Your task to perform on an android device: turn pop-ups off in chrome Image 0: 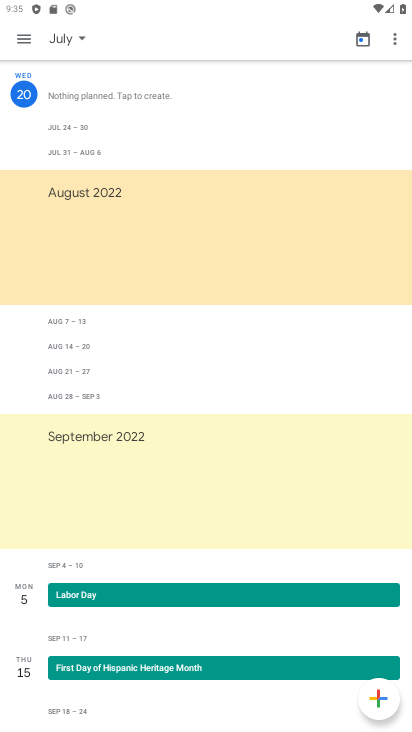
Step 0: press home button
Your task to perform on an android device: turn pop-ups off in chrome Image 1: 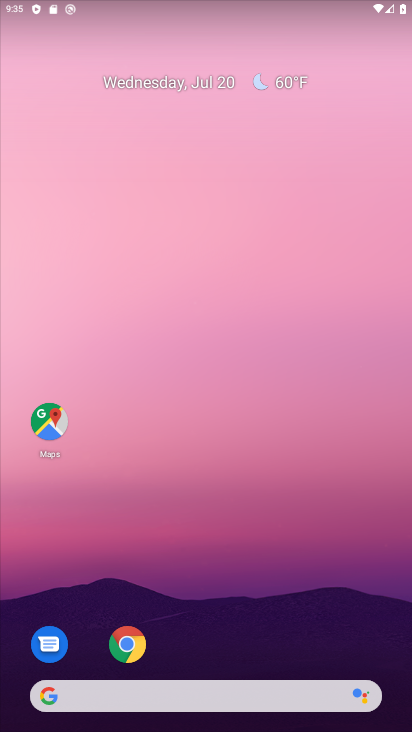
Step 1: click (135, 650)
Your task to perform on an android device: turn pop-ups off in chrome Image 2: 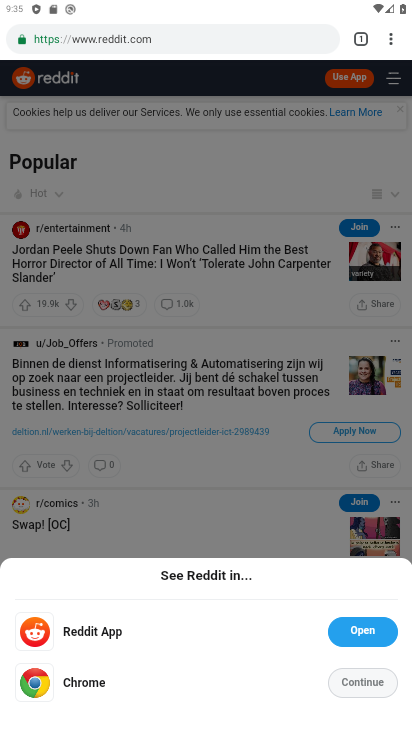
Step 2: click (390, 42)
Your task to perform on an android device: turn pop-ups off in chrome Image 3: 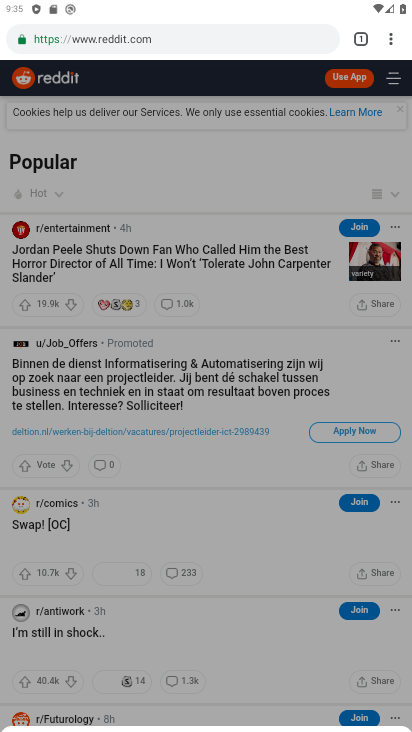
Step 3: click (390, 42)
Your task to perform on an android device: turn pop-ups off in chrome Image 4: 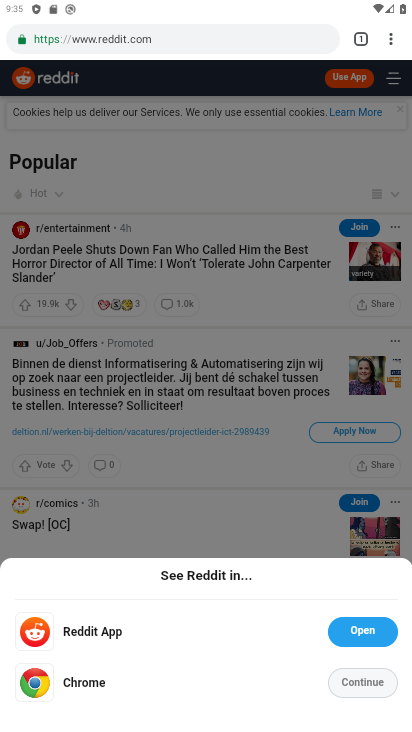
Step 4: click (387, 40)
Your task to perform on an android device: turn pop-ups off in chrome Image 5: 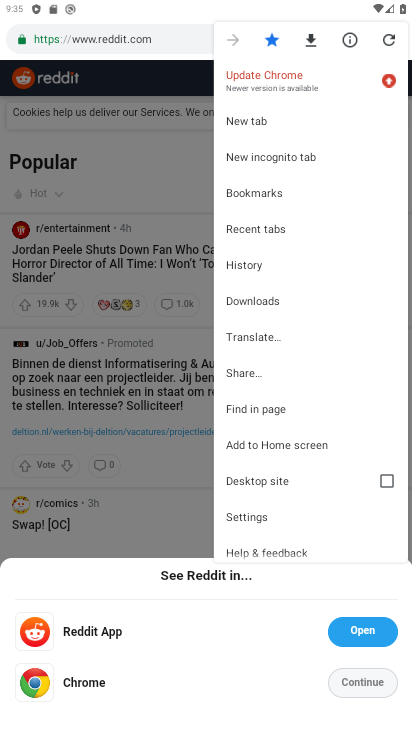
Step 5: click (240, 514)
Your task to perform on an android device: turn pop-ups off in chrome Image 6: 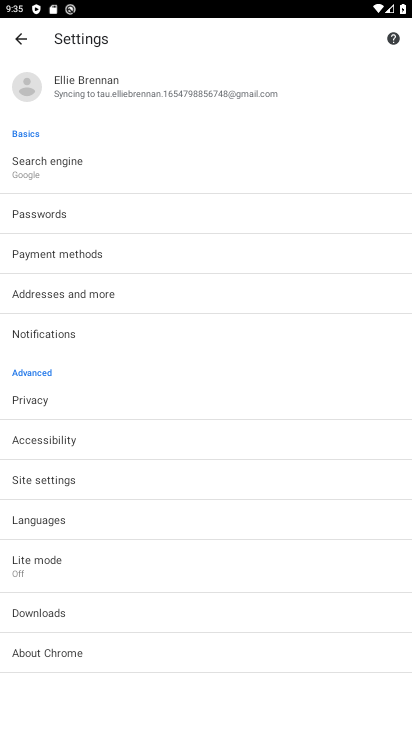
Step 6: click (11, 475)
Your task to perform on an android device: turn pop-ups off in chrome Image 7: 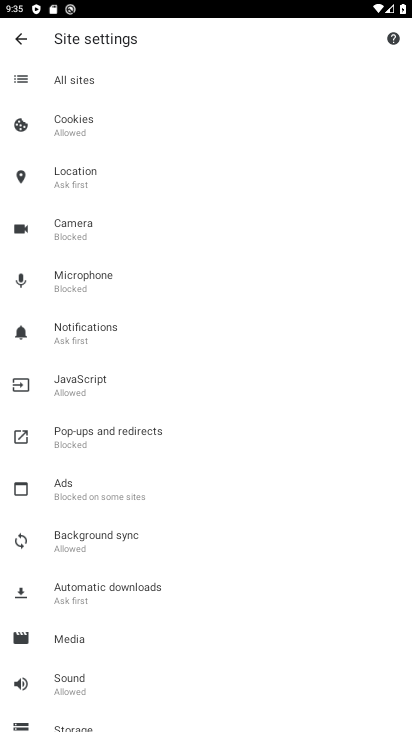
Step 7: click (93, 446)
Your task to perform on an android device: turn pop-ups off in chrome Image 8: 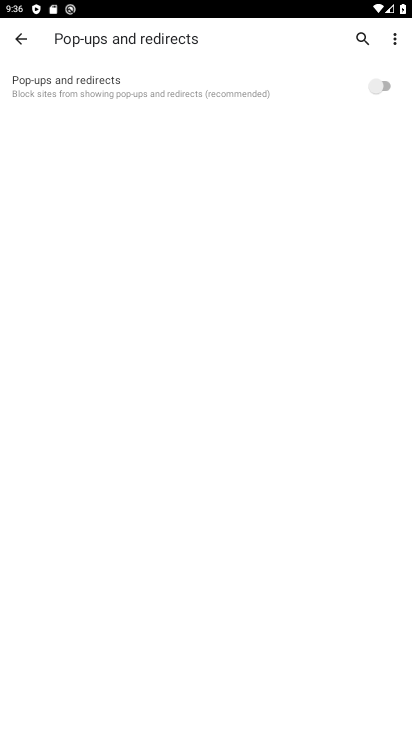
Step 8: click (382, 84)
Your task to perform on an android device: turn pop-ups off in chrome Image 9: 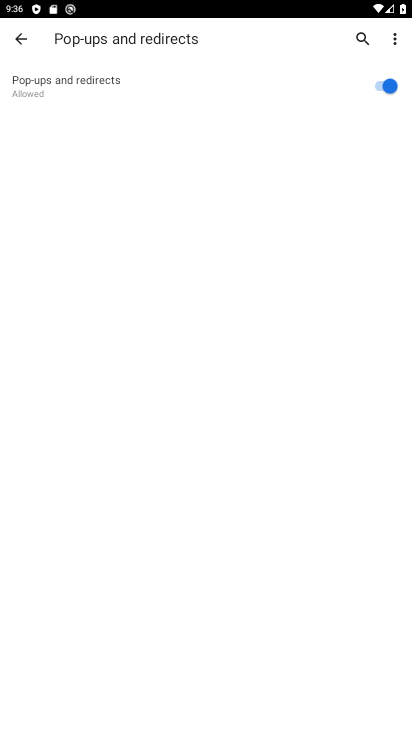
Step 9: click (374, 87)
Your task to perform on an android device: turn pop-ups off in chrome Image 10: 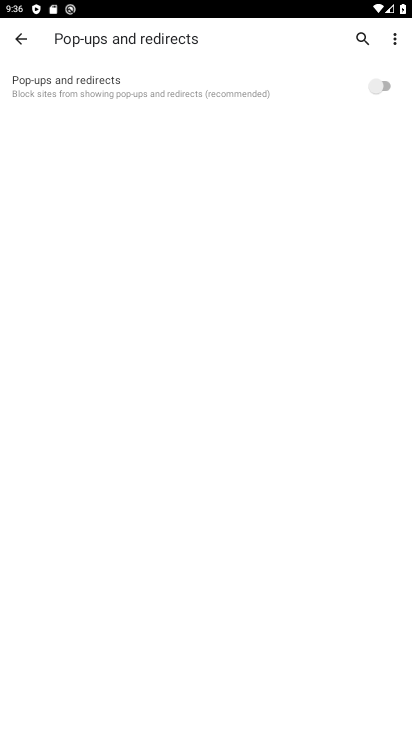
Step 10: task complete